Your task to perform on an android device: Go to internet settings Image 0: 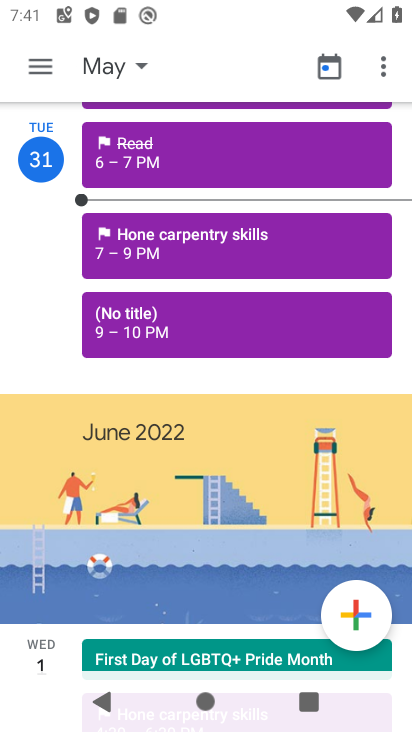
Step 0: press home button
Your task to perform on an android device: Go to internet settings Image 1: 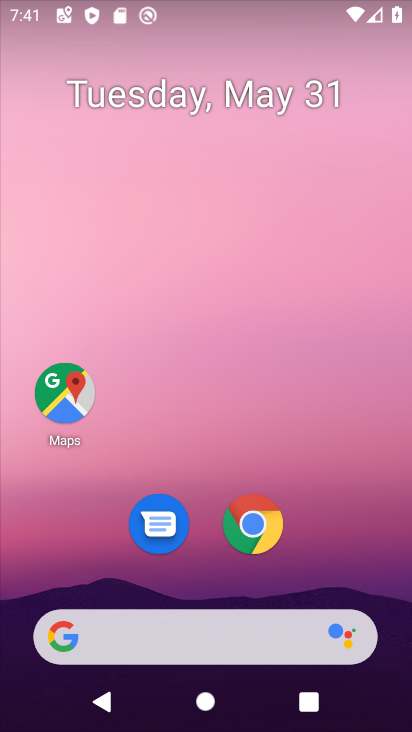
Step 1: drag from (228, 441) to (232, 2)
Your task to perform on an android device: Go to internet settings Image 2: 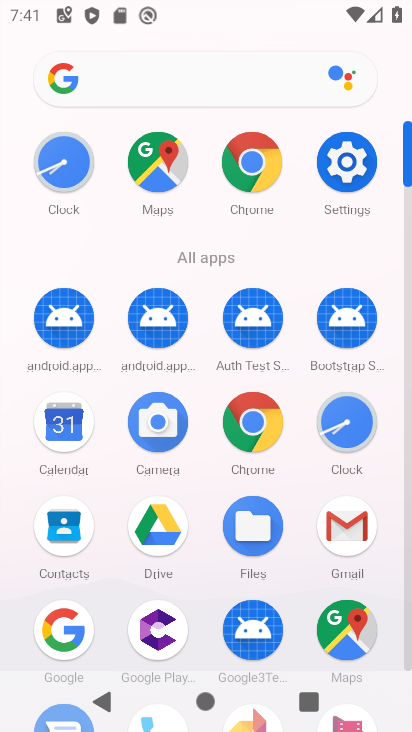
Step 2: click (346, 165)
Your task to perform on an android device: Go to internet settings Image 3: 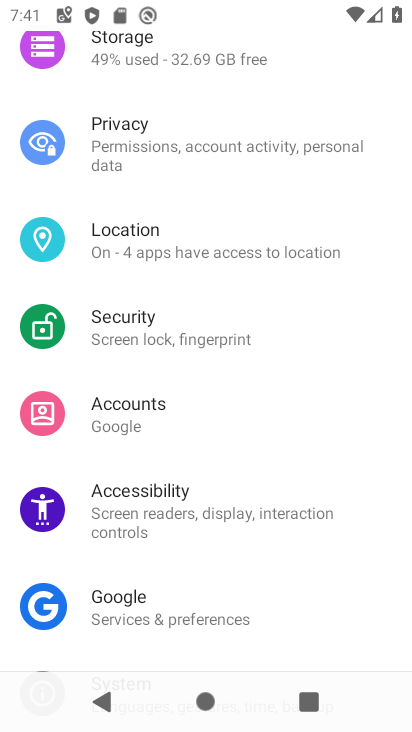
Step 3: drag from (215, 105) to (203, 567)
Your task to perform on an android device: Go to internet settings Image 4: 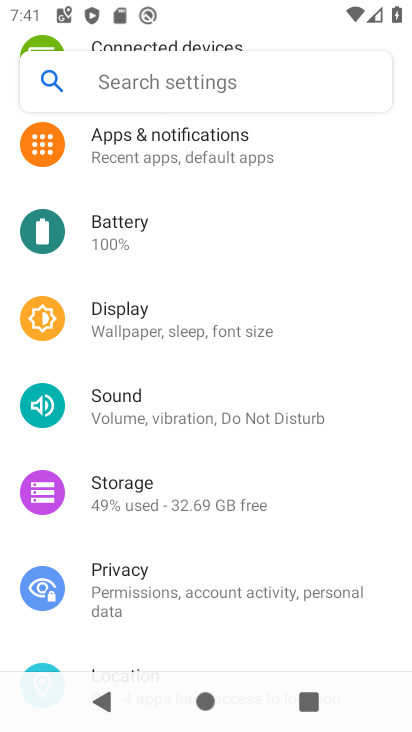
Step 4: drag from (202, 211) to (205, 578)
Your task to perform on an android device: Go to internet settings Image 5: 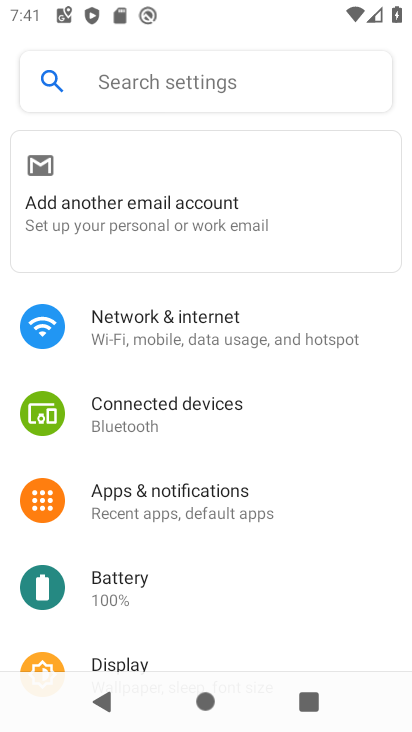
Step 5: click (212, 322)
Your task to perform on an android device: Go to internet settings Image 6: 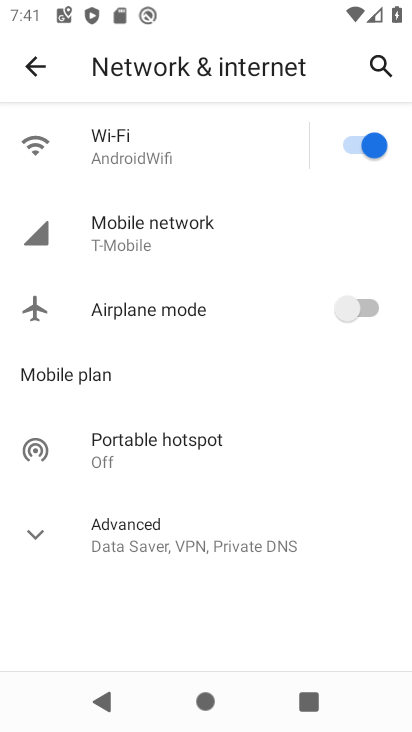
Step 6: task complete